Your task to perform on an android device: delete browsing data in the chrome app Image 0: 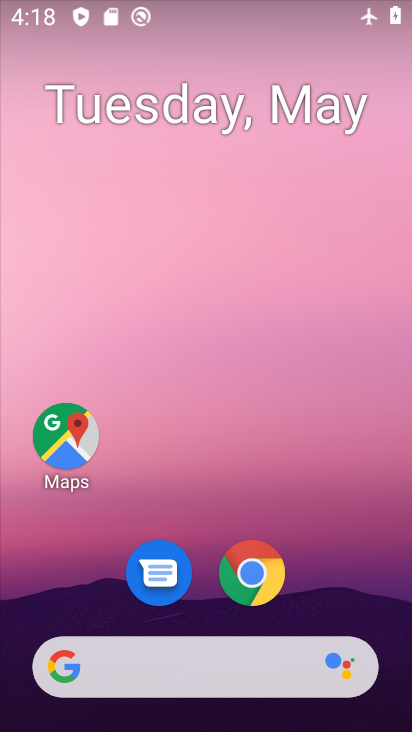
Step 0: click (245, 567)
Your task to perform on an android device: delete browsing data in the chrome app Image 1: 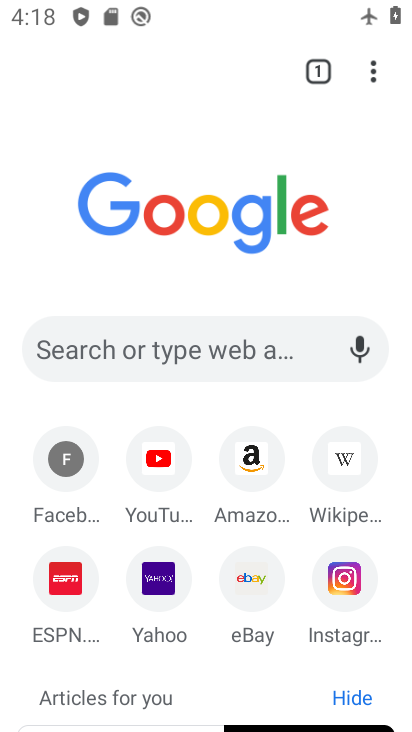
Step 1: task complete